Your task to perform on an android device: turn off airplane mode Image 0: 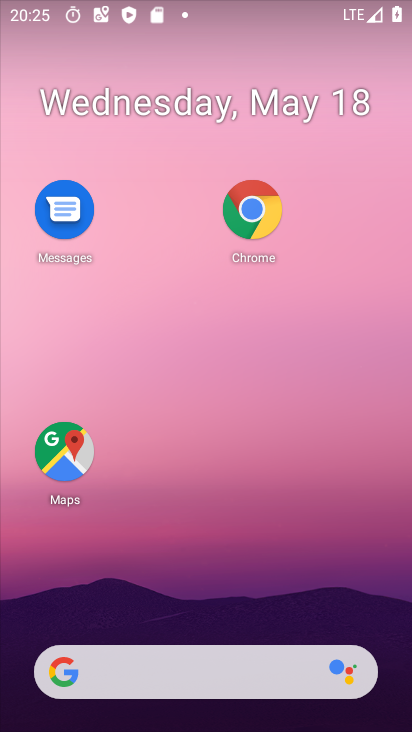
Step 0: drag from (250, 4) to (287, 433)
Your task to perform on an android device: turn off airplane mode Image 1: 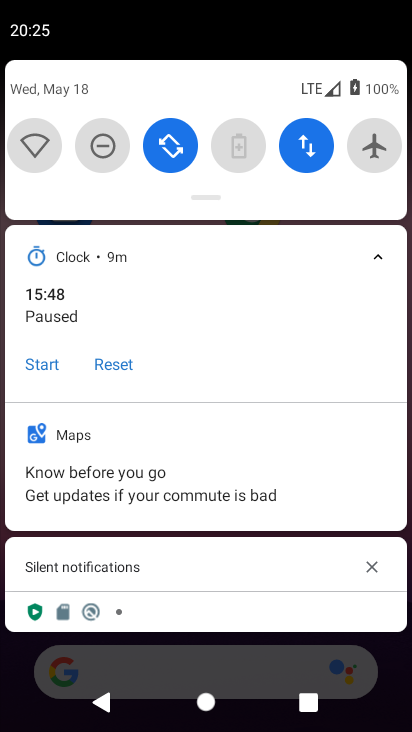
Step 1: task complete